Your task to perform on an android device: open app "Messages" (install if not already installed) Image 0: 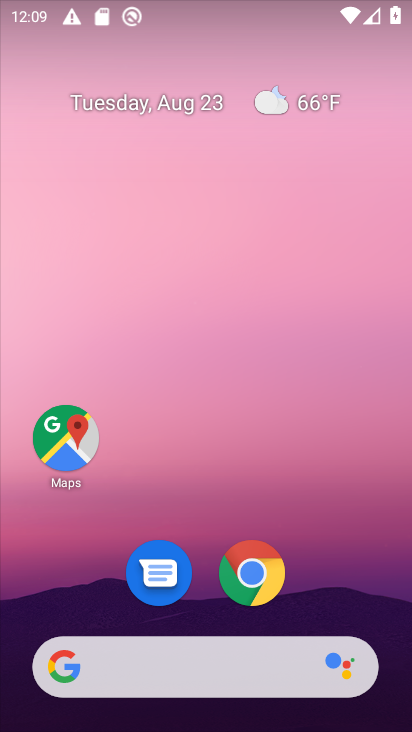
Step 0: drag from (186, 514) to (186, 189)
Your task to perform on an android device: open app "Messages" (install if not already installed) Image 1: 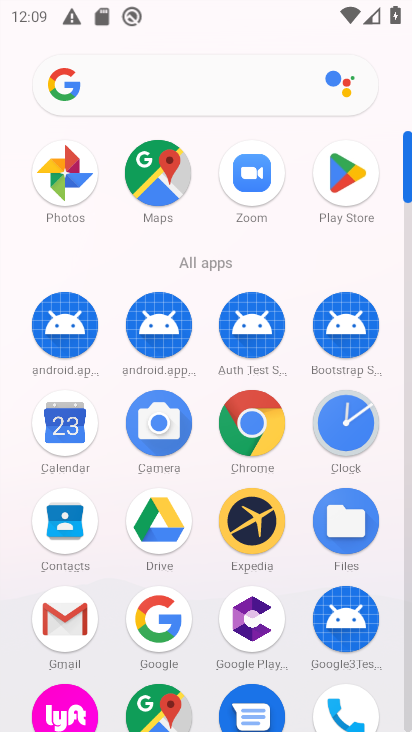
Step 1: click (326, 161)
Your task to perform on an android device: open app "Messages" (install if not already installed) Image 2: 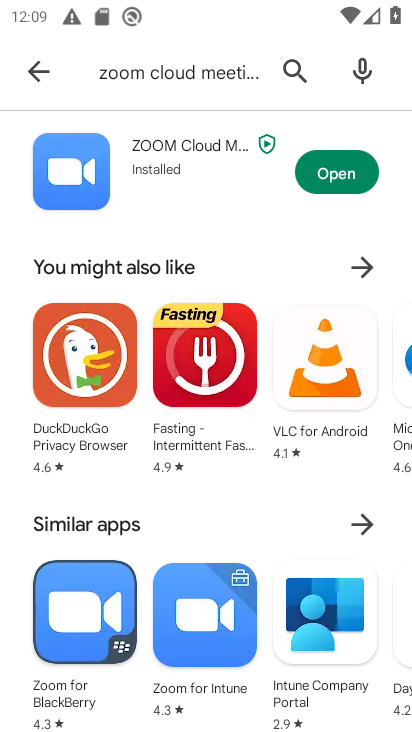
Step 2: click (303, 70)
Your task to perform on an android device: open app "Messages" (install if not already installed) Image 3: 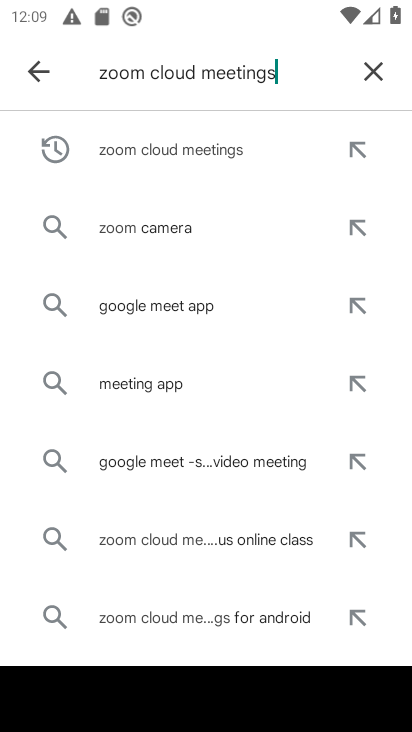
Step 3: click (363, 69)
Your task to perform on an android device: open app "Messages" (install if not already installed) Image 4: 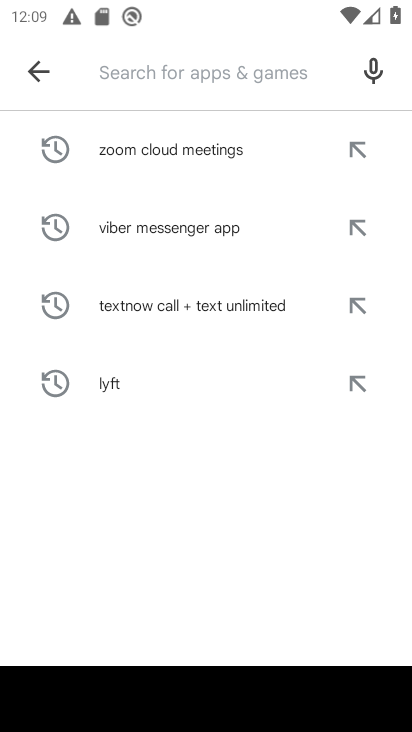
Step 4: type "Messages"
Your task to perform on an android device: open app "Messages" (install if not already installed) Image 5: 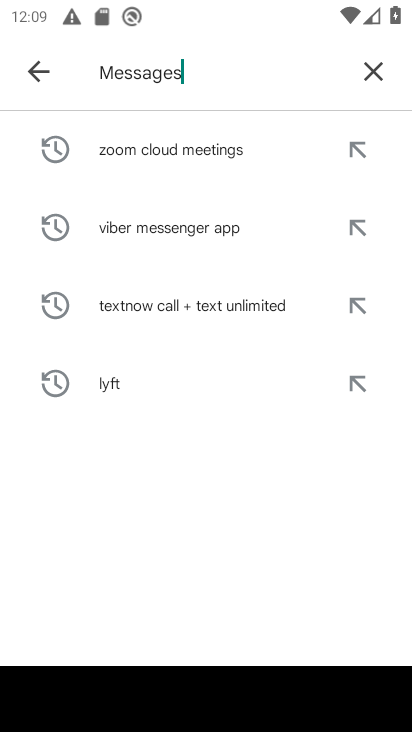
Step 5: type ""
Your task to perform on an android device: open app "Messages" (install if not already installed) Image 6: 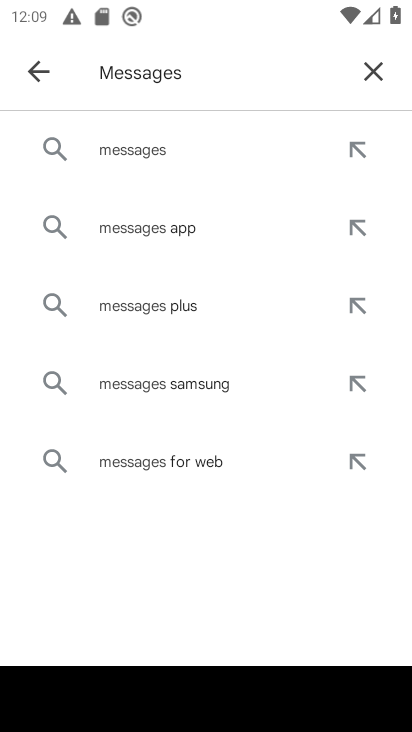
Step 6: click (209, 155)
Your task to perform on an android device: open app "Messages" (install if not already installed) Image 7: 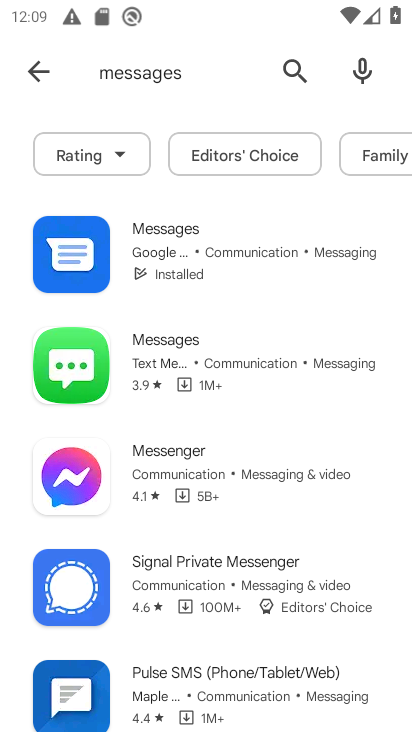
Step 7: click (188, 249)
Your task to perform on an android device: open app "Messages" (install if not already installed) Image 8: 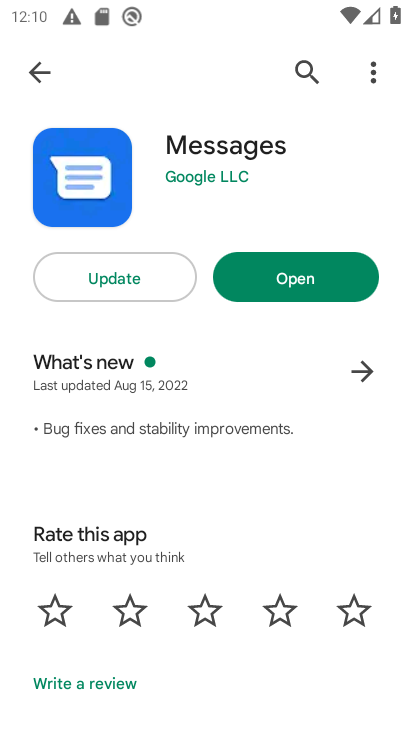
Step 8: click (293, 268)
Your task to perform on an android device: open app "Messages" (install if not already installed) Image 9: 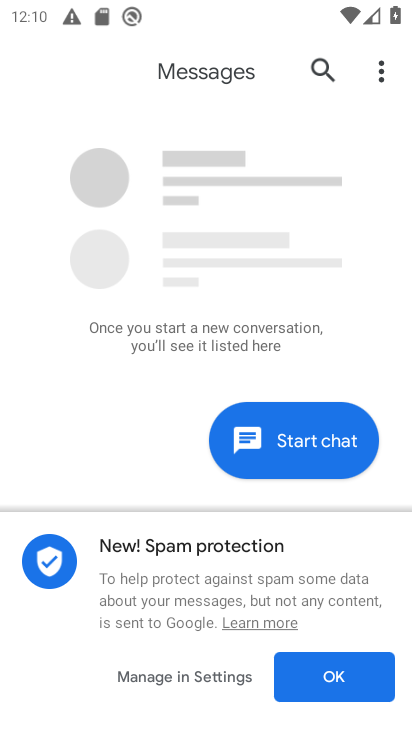
Step 9: task complete